Your task to perform on an android device: Open the stopwatch Image 0: 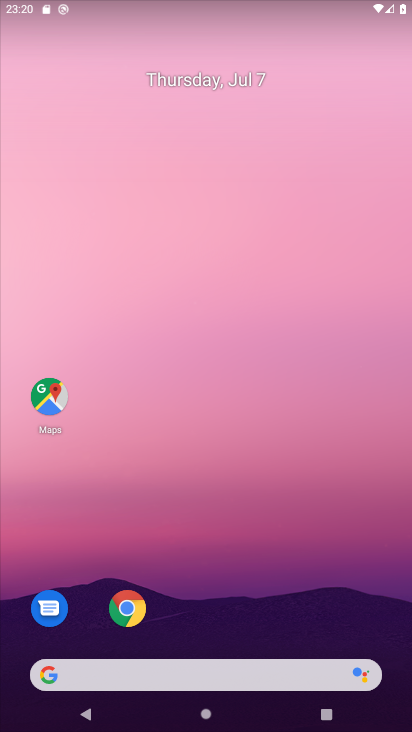
Step 0: drag from (304, 626) to (290, 256)
Your task to perform on an android device: Open the stopwatch Image 1: 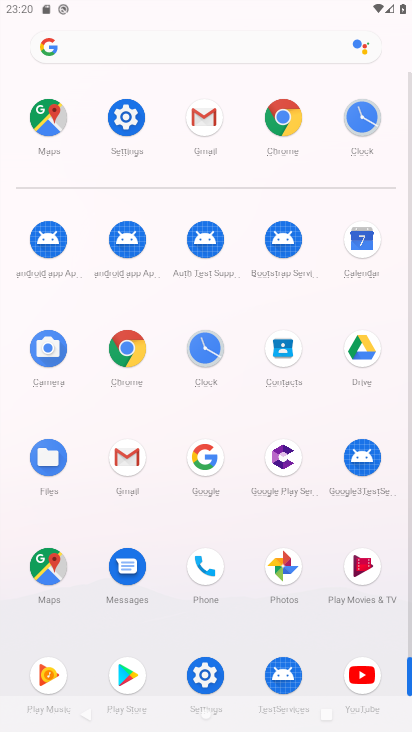
Step 1: click (211, 342)
Your task to perform on an android device: Open the stopwatch Image 2: 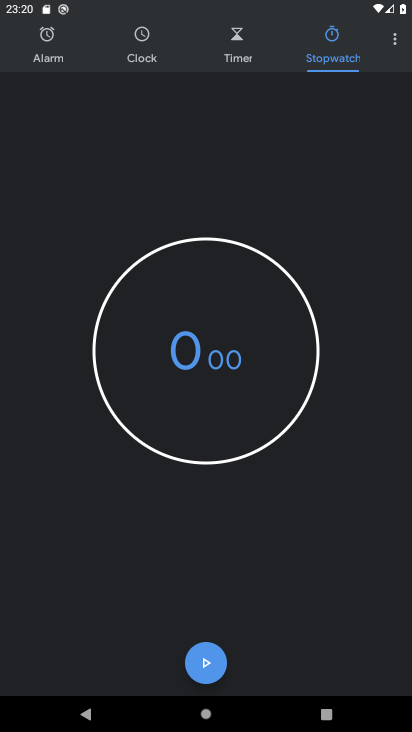
Step 2: task complete